Your task to perform on an android device: make emails show in primary in the gmail app Image 0: 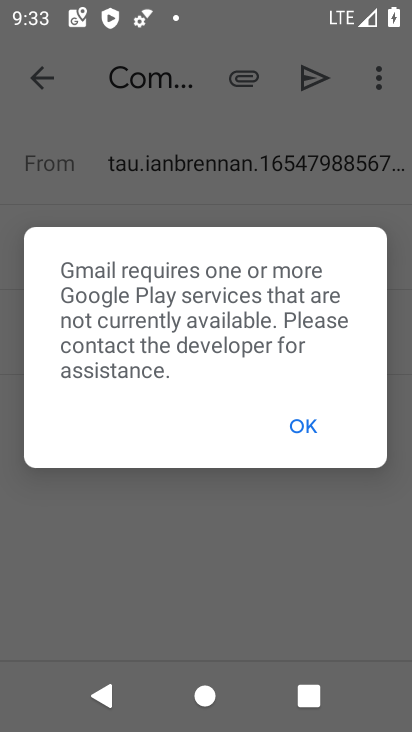
Step 0: press home button
Your task to perform on an android device: make emails show in primary in the gmail app Image 1: 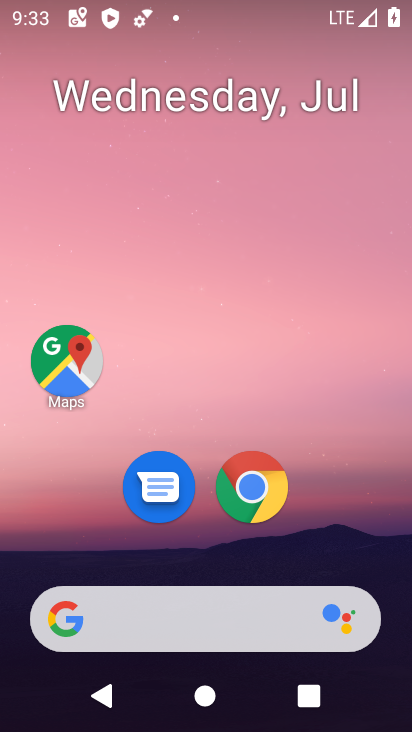
Step 1: drag from (261, 583) to (165, 130)
Your task to perform on an android device: make emails show in primary in the gmail app Image 2: 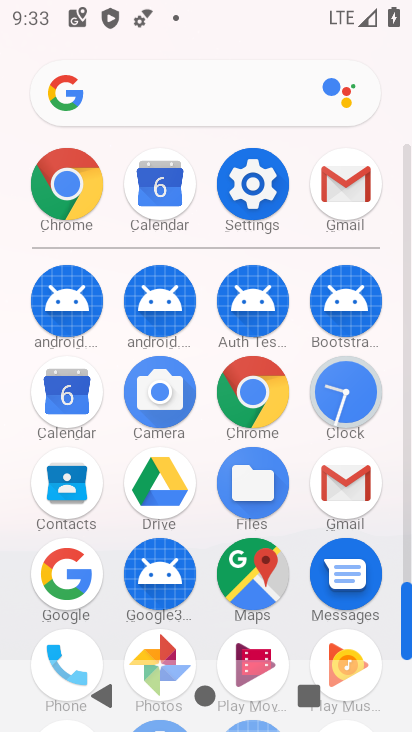
Step 2: click (344, 195)
Your task to perform on an android device: make emails show in primary in the gmail app Image 3: 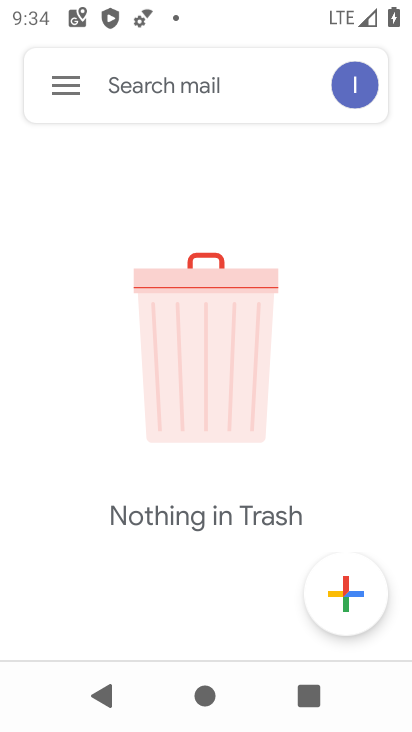
Step 3: click (60, 86)
Your task to perform on an android device: make emails show in primary in the gmail app Image 4: 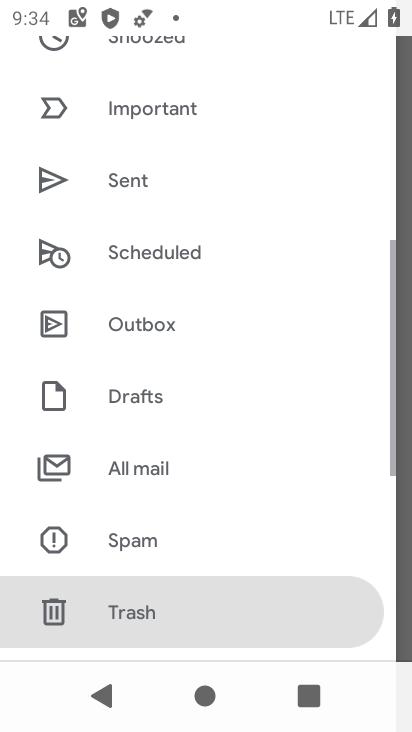
Step 4: drag from (60, 86) to (64, 487)
Your task to perform on an android device: make emails show in primary in the gmail app Image 5: 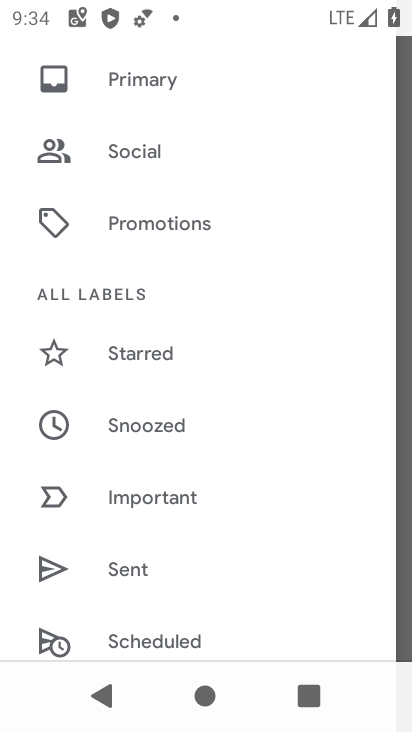
Step 5: click (106, 89)
Your task to perform on an android device: make emails show in primary in the gmail app Image 6: 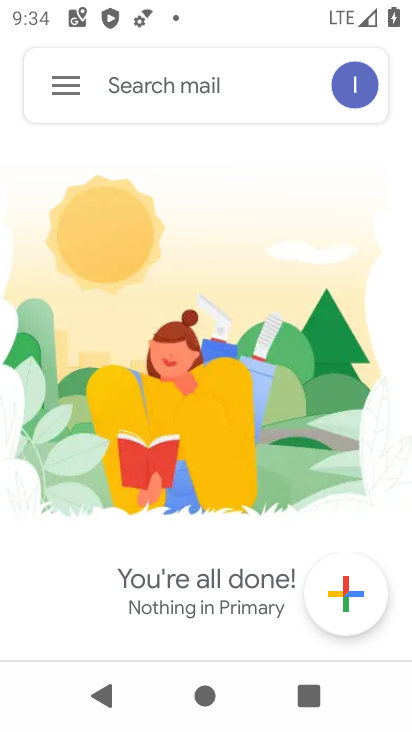
Step 6: task complete